Your task to perform on an android device: Is it going to rain this weekend? Image 0: 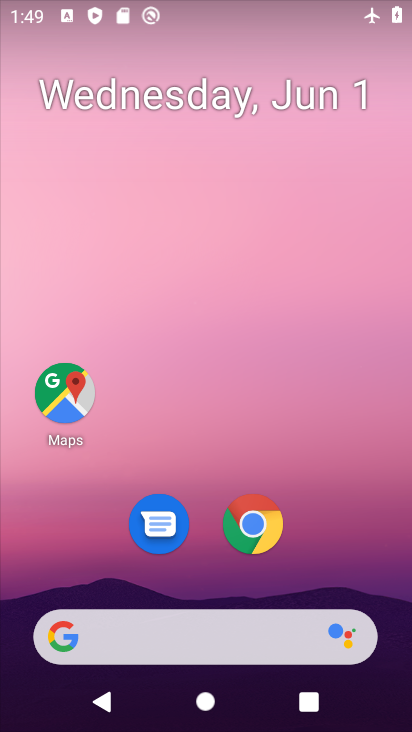
Step 0: click (200, 641)
Your task to perform on an android device: Is it going to rain this weekend? Image 1: 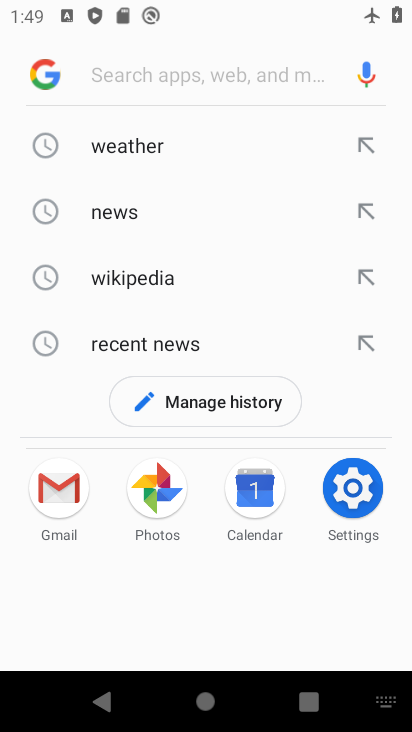
Step 1: click (132, 142)
Your task to perform on an android device: Is it going to rain this weekend? Image 2: 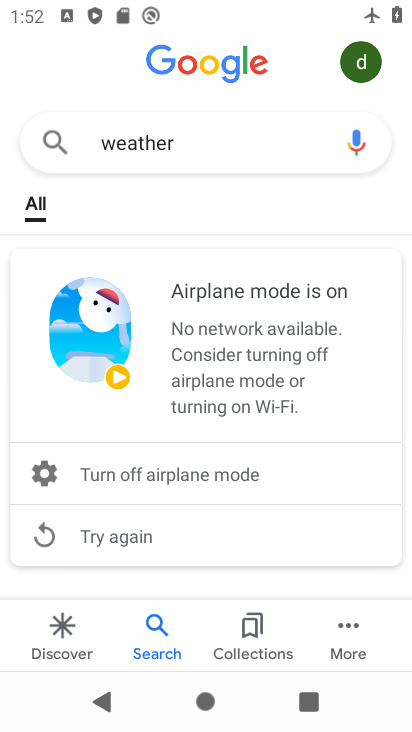
Step 2: task complete